Your task to perform on an android device: What time is it in New York? Image 0: 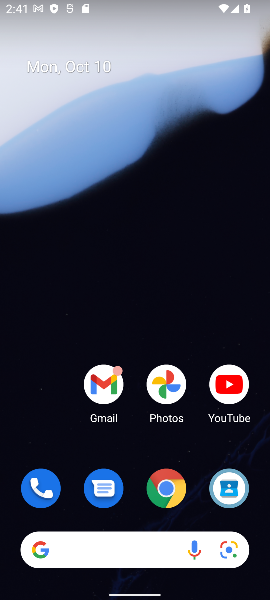
Step 0: click (108, 558)
Your task to perform on an android device: What time is it in New York? Image 1: 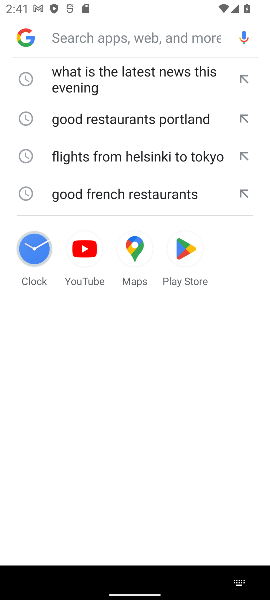
Step 1: click (133, 42)
Your task to perform on an android device: What time is it in New York? Image 2: 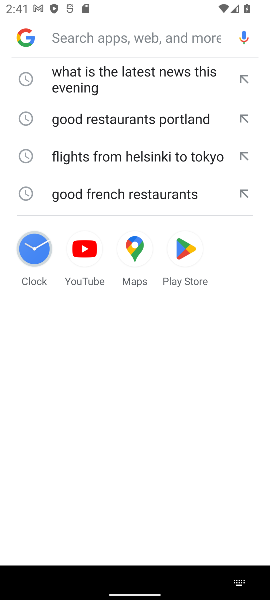
Step 2: type "What time is it in New York"
Your task to perform on an android device: What time is it in New York? Image 3: 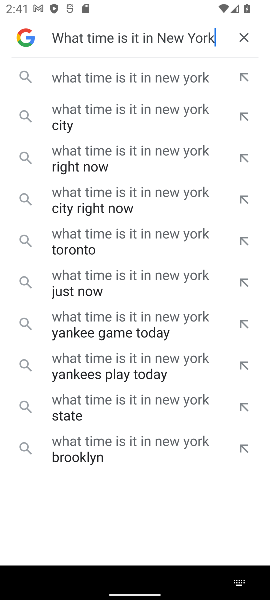
Step 3: click (176, 83)
Your task to perform on an android device: What time is it in New York? Image 4: 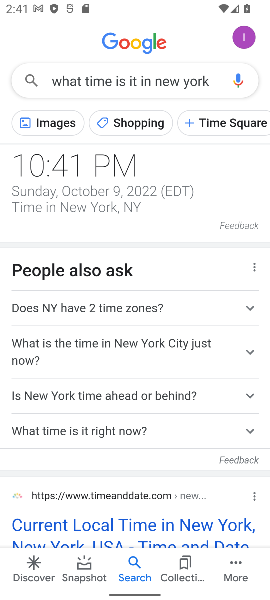
Step 4: task complete